Your task to perform on an android device: change the clock style Image 0: 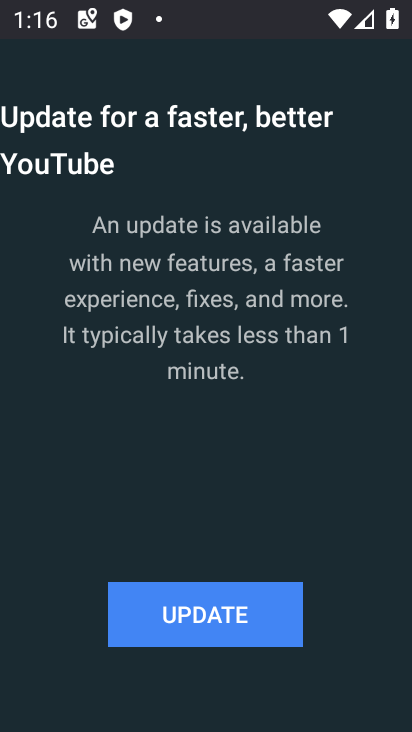
Step 0: press home button
Your task to perform on an android device: change the clock style Image 1: 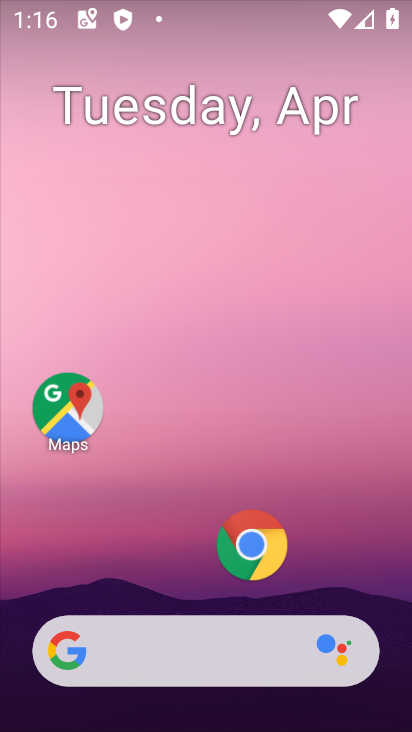
Step 1: drag from (328, 544) to (393, 61)
Your task to perform on an android device: change the clock style Image 2: 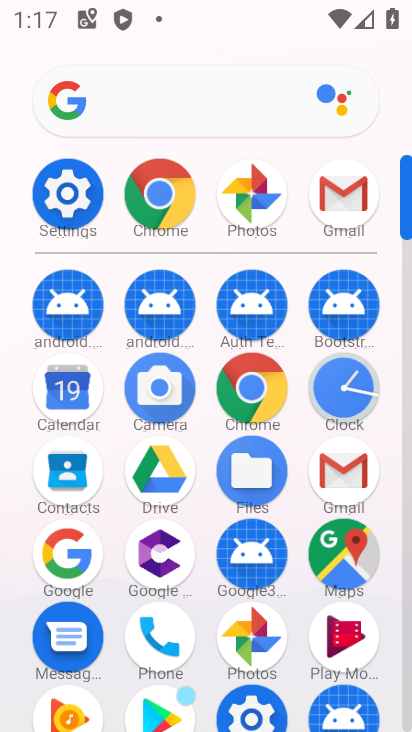
Step 2: click (341, 379)
Your task to perform on an android device: change the clock style Image 3: 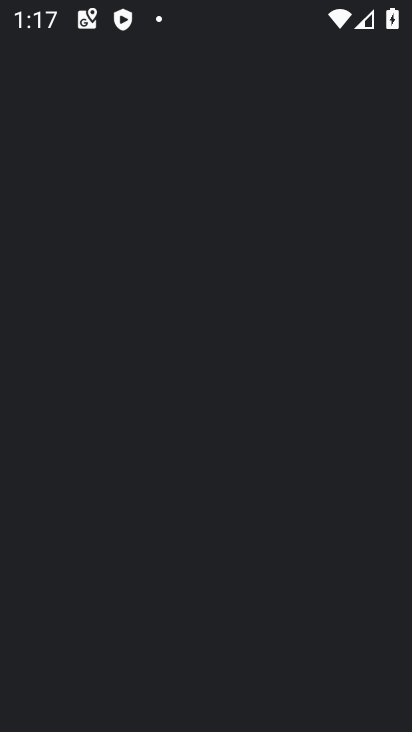
Step 3: click (337, 371)
Your task to perform on an android device: change the clock style Image 4: 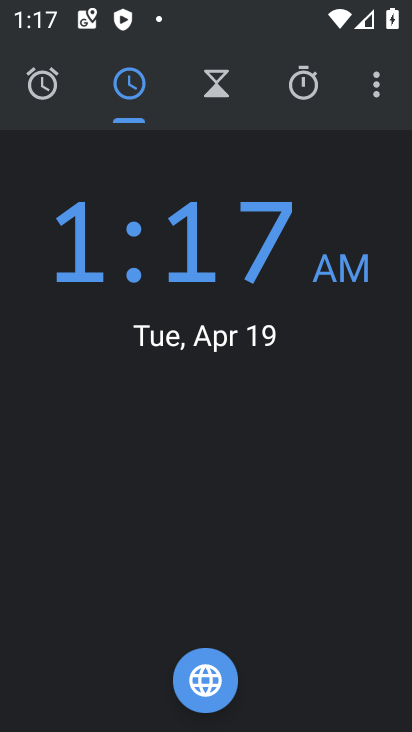
Step 4: click (372, 95)
Your task to perform on an android device: change the clock style Image 5: 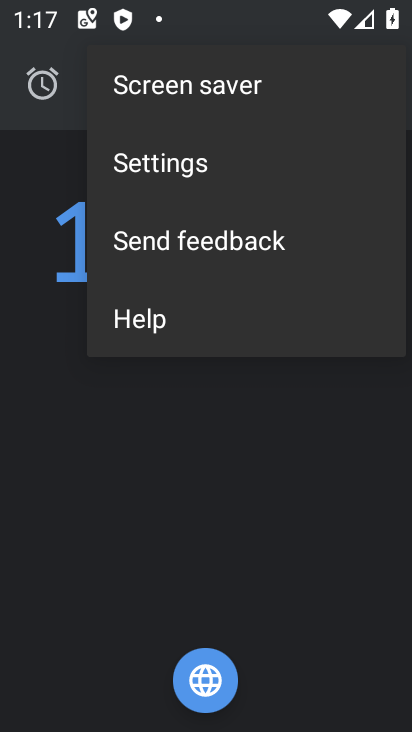
Step 5: click (218, 158)
Your task to perform on an android device: change the clock style Image 6: 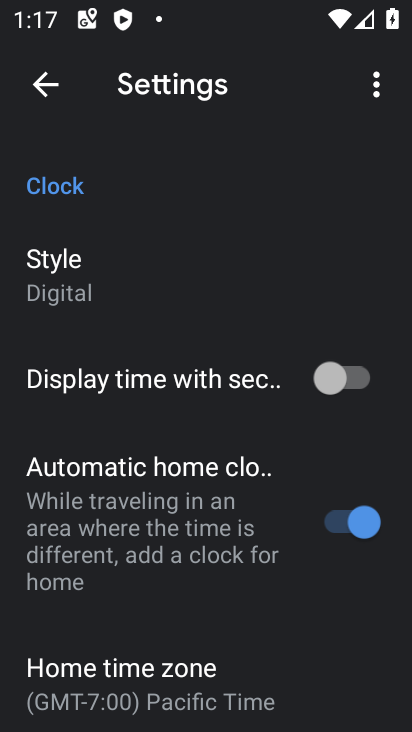
Step 6: click (106, 261)
Your task to perform on an android device: change the clock style Image 7: 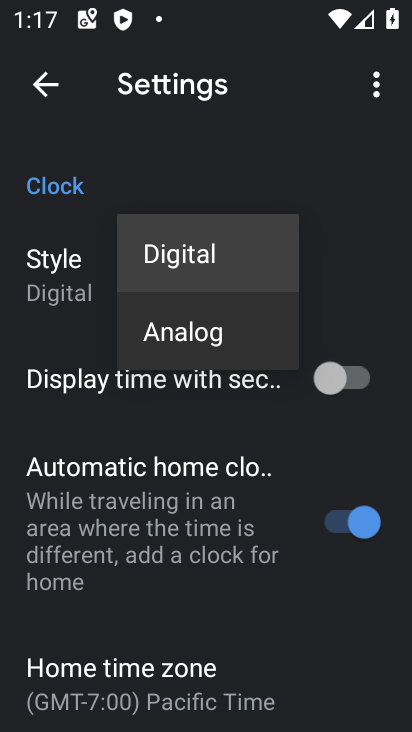
Step 7: click (234, 332)
Your task to perform on an android device: change the clock style Image 8: 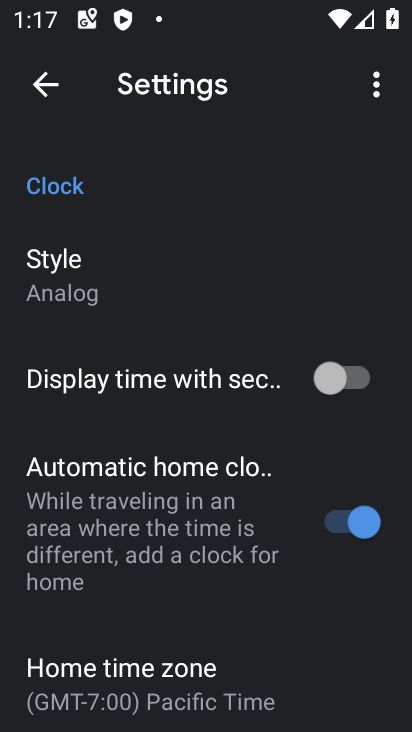
Step 8: task complete